Your task to perform on an android device: Go to calendar. Show me events next week Image 0: 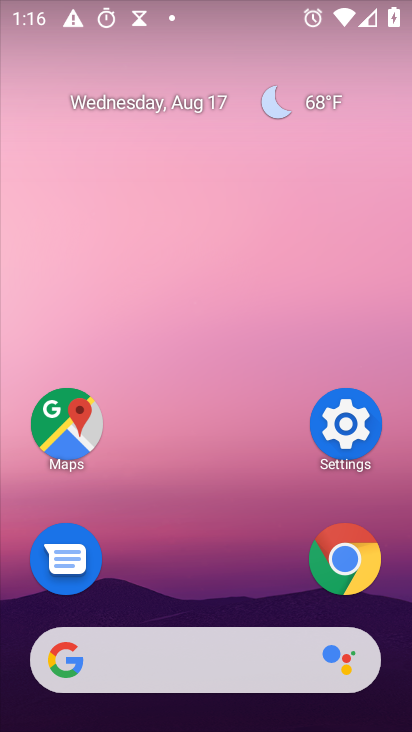
Step 0: drag from (194, 628) to (185, 181)
Your task to perform on an android device: Go to calendar. Show me events next week Image 1: 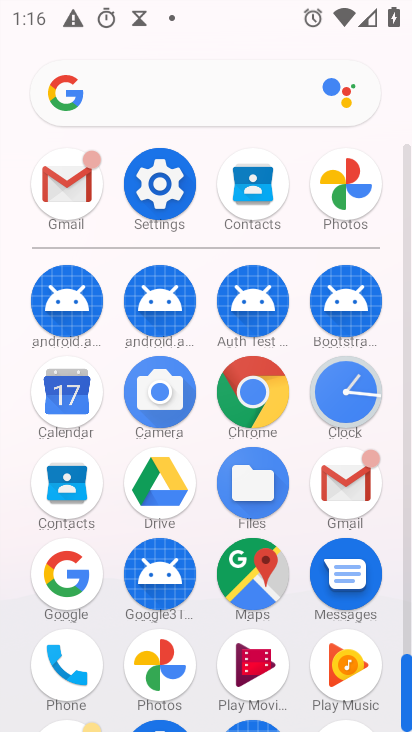
Step 1: click (71, 402)
Your task to perform on an android device: Go to calendar. Show me events next week Image 2: 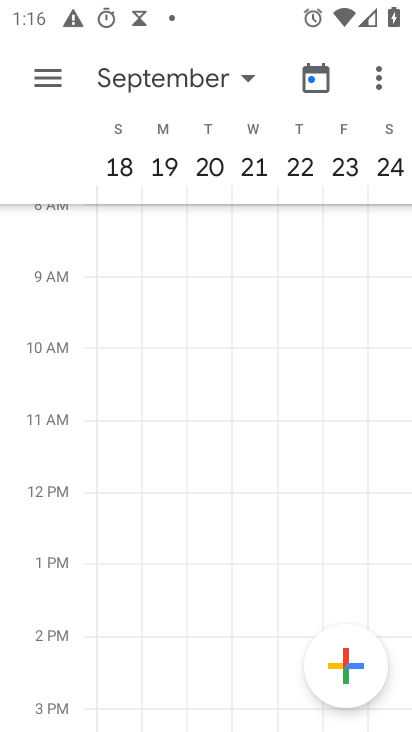
Step 2: click (178, 76)
Your task to perform on an android device: Go to calendar. Show me events next week Image 3: 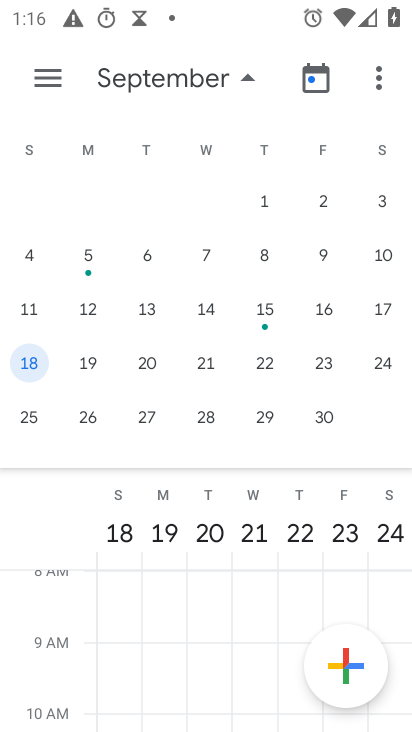
Step 3: drag from (56, 389) to (405, 438)
Your task to perform on an android device: Go to calendar. Show me events next week Image 4: 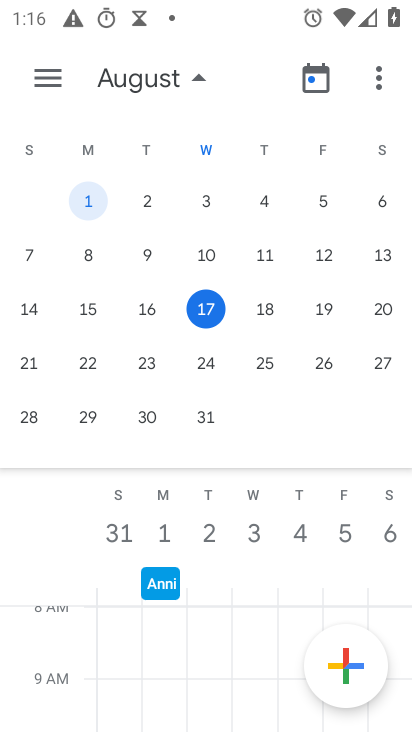
Step 4: click (35, 365)
Your task to perform on an android device: Go to calendar. Show me events next week Image 5: 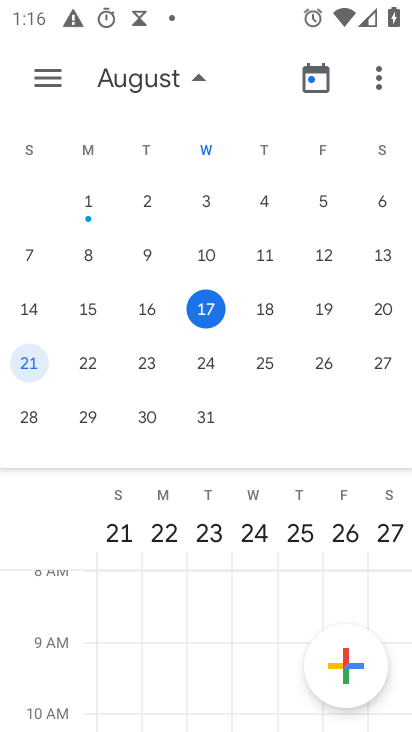
Step 5: click (45, 63)
Your task to perform on an android device: Go to calendar. Show me events next week Image 6: 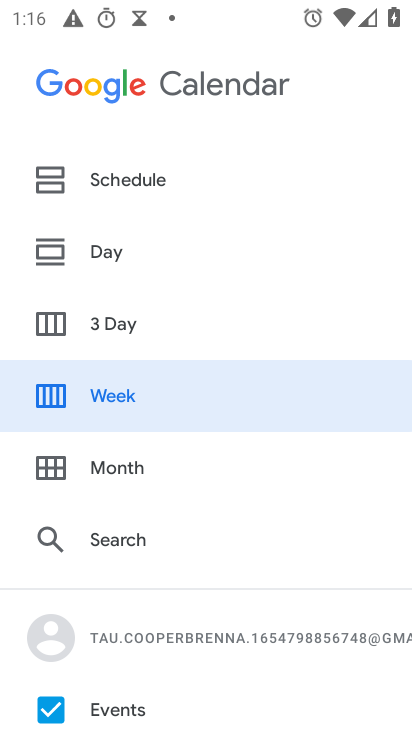
Step 6: click (130, 398)
Your task to perform on an android device: Go to calendar. Show me events next week Image 7: 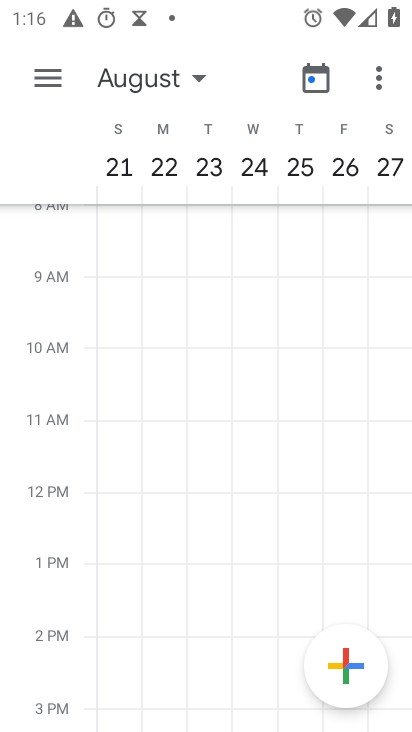
Step 7: click (41, 86)
Your task to perform on an android device: Go to calendar. Show me events next week Image 8: 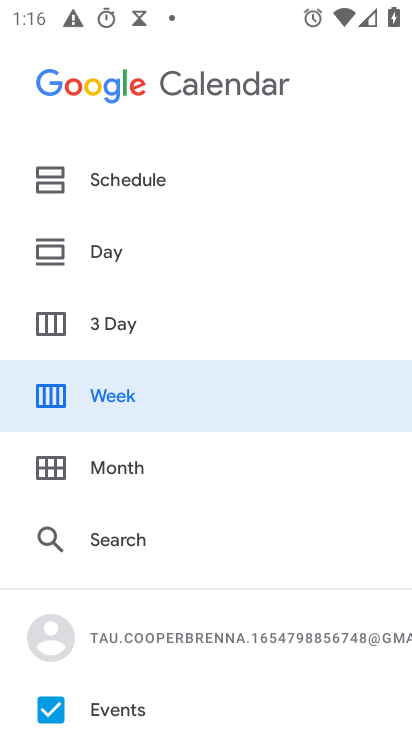
Step 8: click (117, 176)
Your task to perform on an android device: Go to calendar. Show me events next week Image 9: 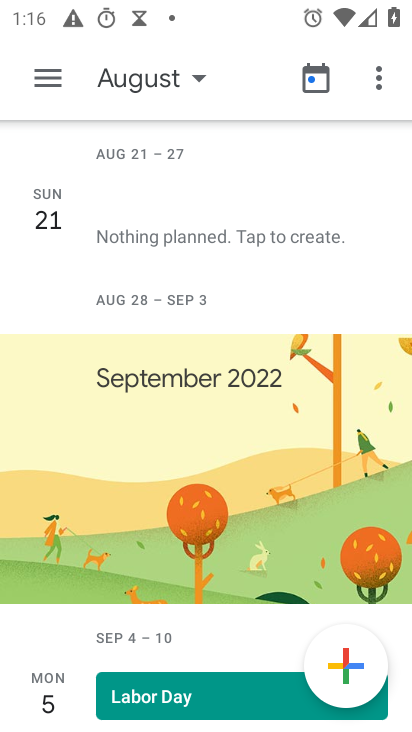
Step 9: task complete